Your task to perform on an android device: Open display settings Image 0: 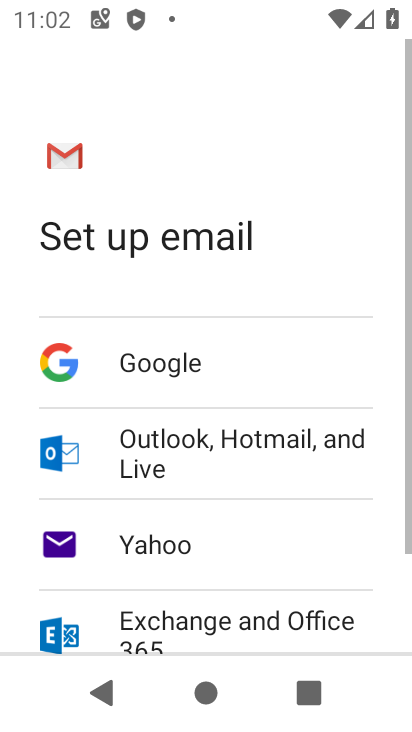
Step 0: press home button
Your task to perform on an android device: Open display settings Image 1: 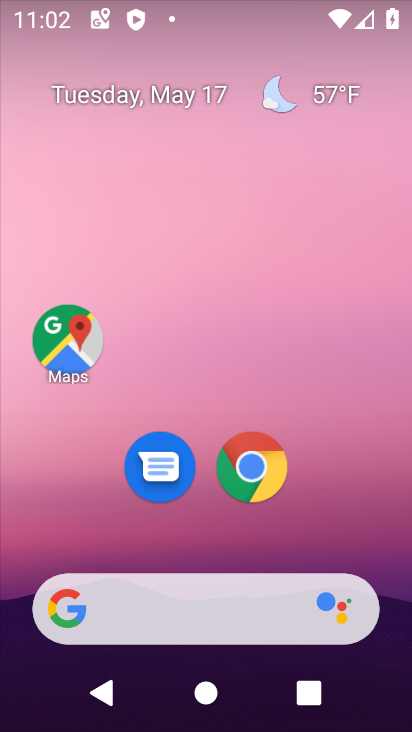
Step 1: drag from (292, 655) to (351, 103)
Your task to perform on an android device: Open display settings Image 2: 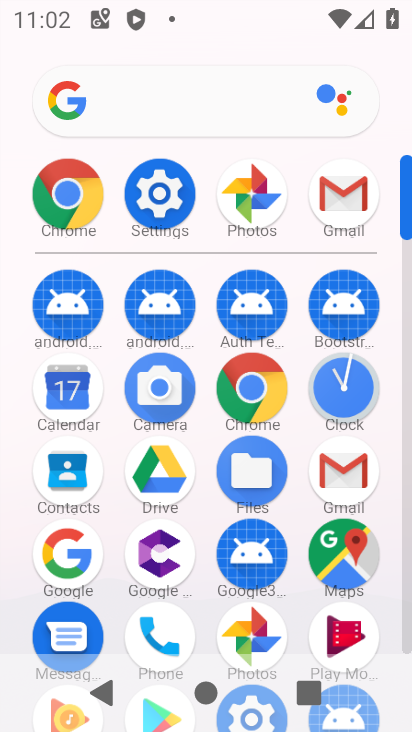
Step 2: click (155, 211)
Your task to perform on an android device: Open display settings Image 3: 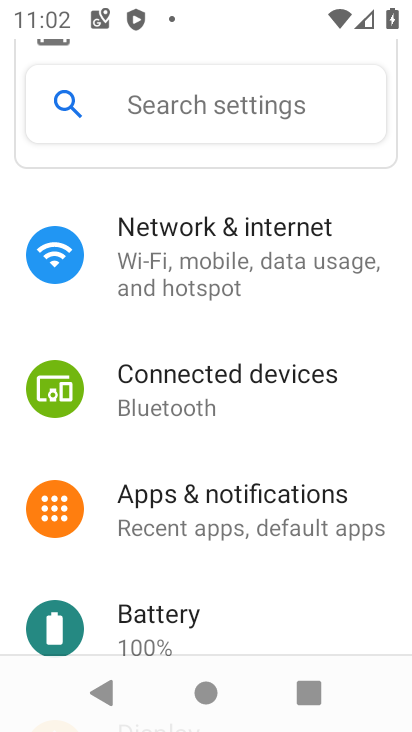
Step 3: drag from (150, 574) to (234, 246)
Your task to perform on an android device: Open display settings Image 4: 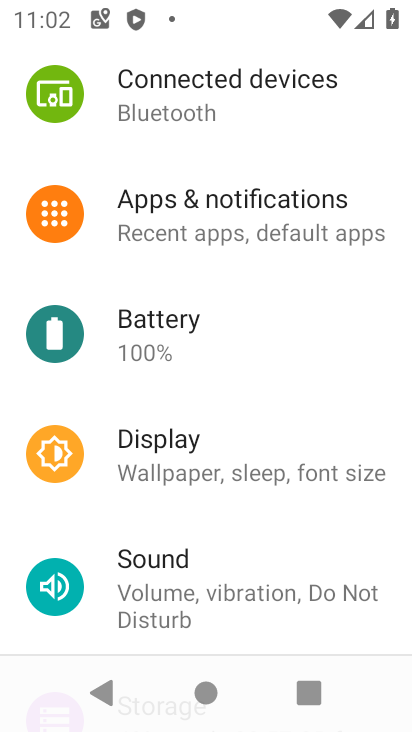
Step 4: click (184, 477)
Your task to perform on an android device: Open display settings Image 5: 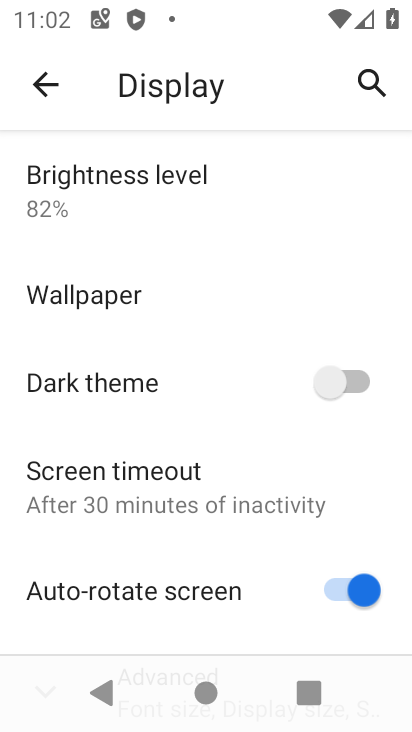
Step 5: task complete